Your task to perform on an android device: Add usb-c to usb-a to the cart on target.com, then select checkout. Image 0: 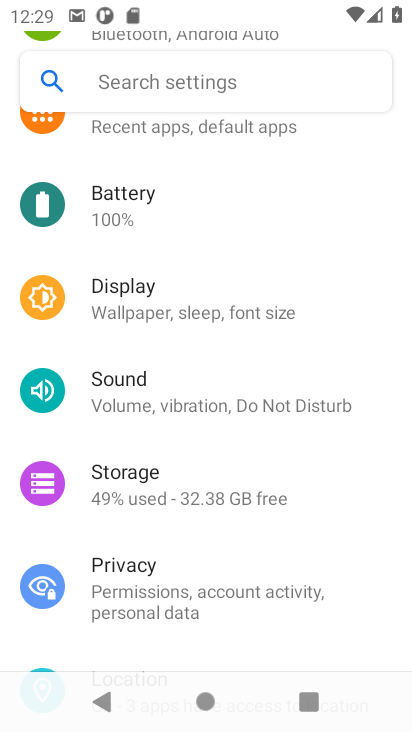
Step 0: press home button
Your task to perform on an android device: Add usb-c to usb-a to the cart on target.com, then select checkout. Image 1: 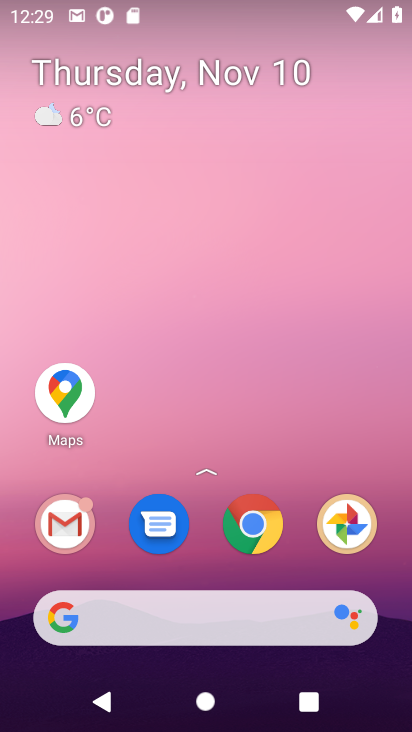
Step 1: click (237, 532)
Your task to perform on an android device: Add usb-c to usb-a to the cart on target.com, then select checkout. Image 2: 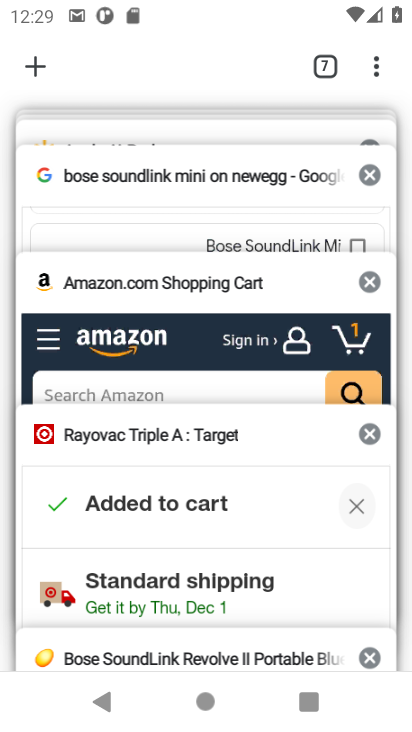
Step 2: click (261, 449)
Your task to perform on an android device: Add usb-c to usb-a to the cart on target.com, then select checkout. Image 3: 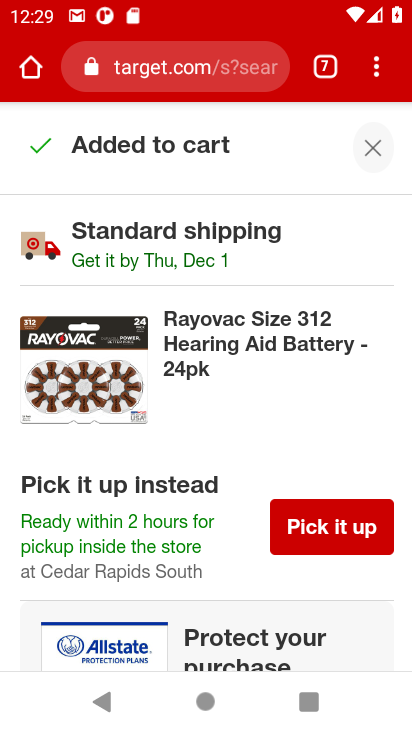
Step 3: click (377, 150)
Your task to perform on an android device: Add usb-c to usb-a to the cart on target.com, then select checkout. Image 4: 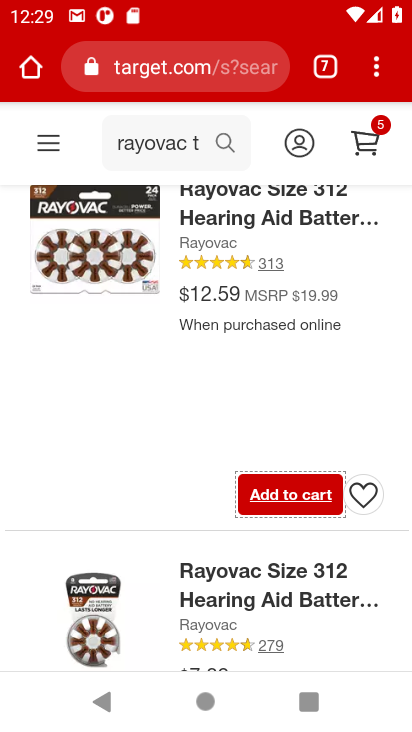
Step 4: click (195, 148)
Your task to perform on an android device: Add usb-c to usb-a to the cart on target.com, then select checkout. Image 5: 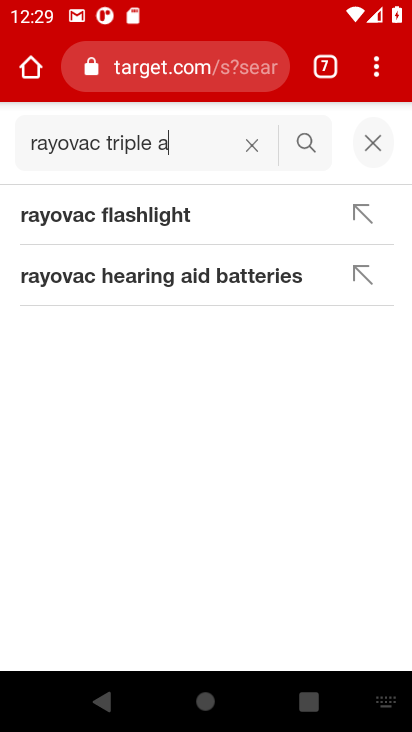
Step 5: click (254, 144)
Your task to perform on an android device: Add usb-c to usb-a to the cart on target.com, then select checkout. Image 6: 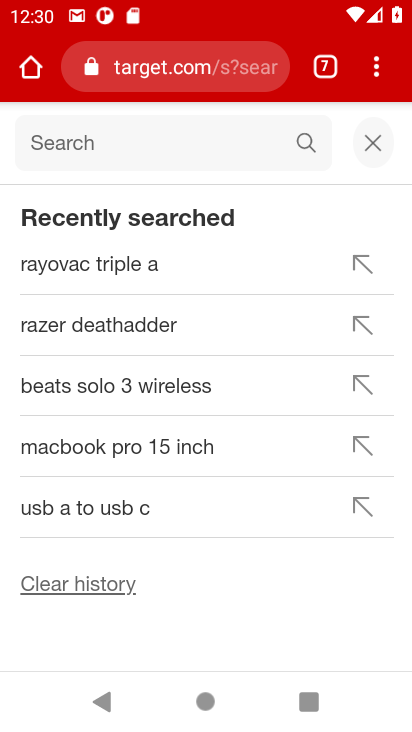
Step 6: type "usb-c to usb-a"
Your task to perform on an android device: Add usb-c to usb-a to the cart on target.com, then select checkout. Image 7: 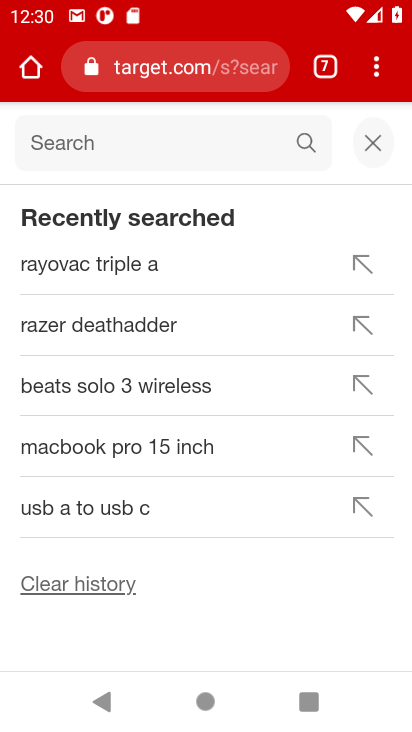
Step 7: click (151, 148)
Your task to perform on an android device: Add usb-c to usb-a to the cart on target.com, then select checkout. Image 8: 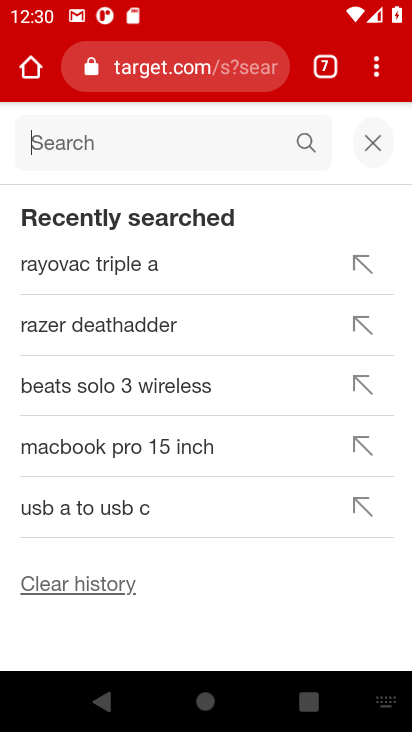
Step 8: type "usb-c to usb-a"
Your task to perform on an android device: Add usb-c to usb-a to the cart on target.com, then select checkout. Image 9: 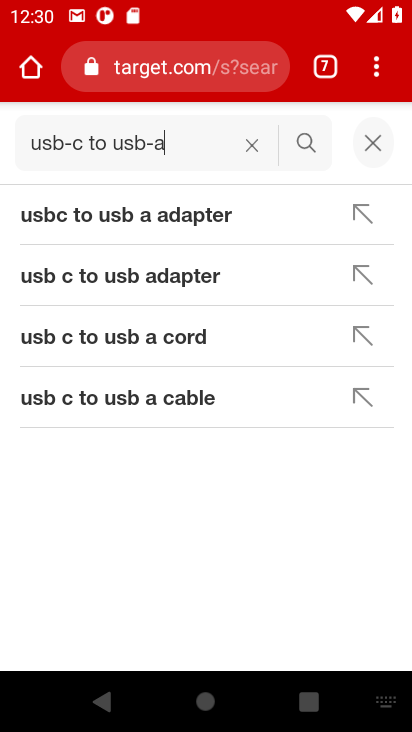
Step 9: click (301, 141)
Your task to perform on an android device: Add usb-c to usb-a to the cart on target.com, then select checkout. Image 10: 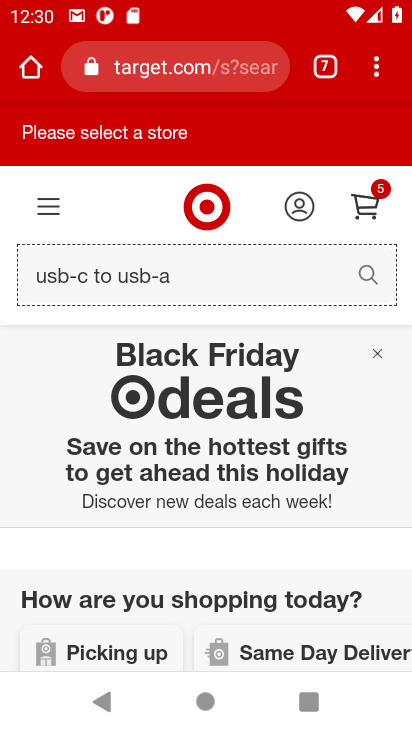
Step 10: drag from (263, 549) to (408, 267)
Your task to perform on an android device: Add usb-c to usb-a to the cart on target.com, then select checkout. Image 11: 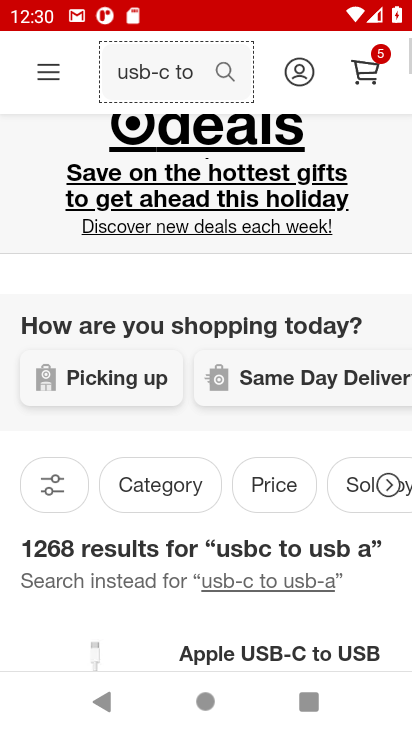
Step 11: drag from (318, 595) to (363, 177)
Your task to perform on an android device: Add usb-c to usb-a to the cart on target.com, then select checkout. Image 12: 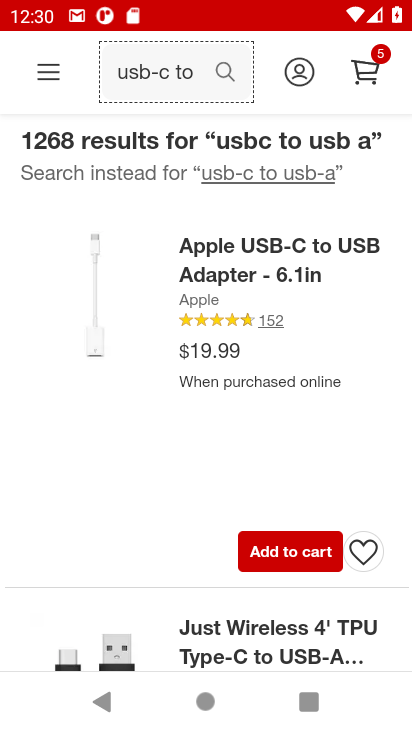
Step 12: click (271, 552)
Your task to perform on an android device: Add usb-c to usb-a to the cart on target.com, then select checkout. Image 13: 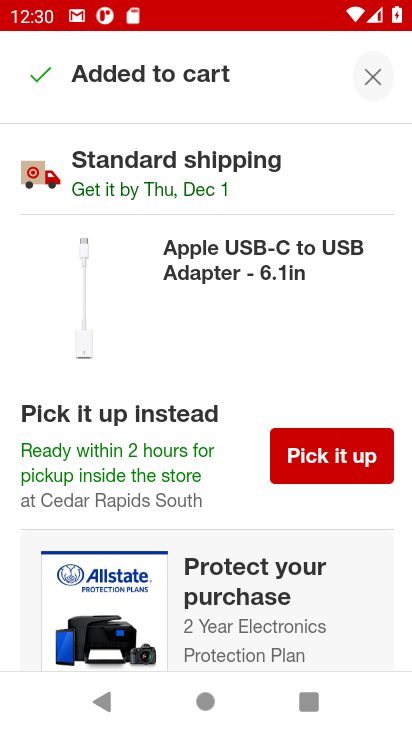
Step 13: click (370, 80)
Your task to perform on an android device: Add usb-c to usb-a to the cart on target.com, then select checkout. Image 14: 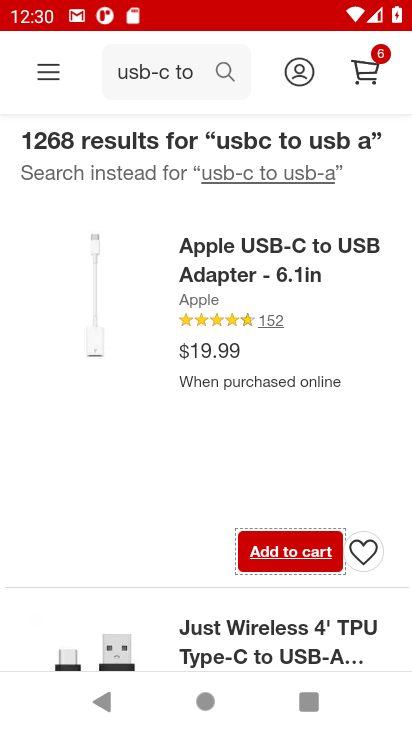
Step 14: click (368, 71)
Your task to perform on an android device: Add usb-c to usb-a to the cart on target.com, then select checkout. Image 15: 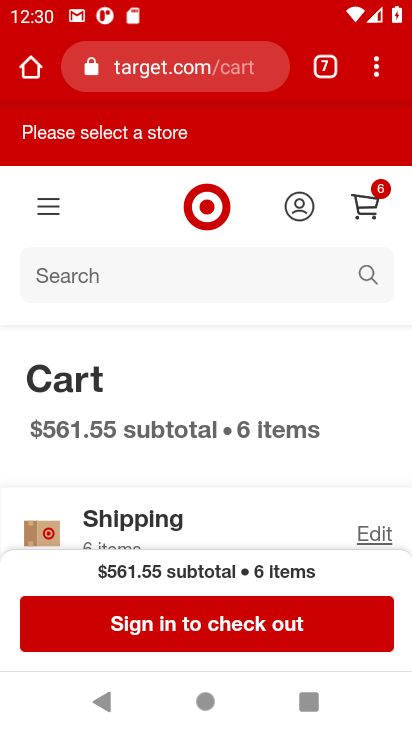
Step 15: click (249, 617)
Your task to perform on an android device: Add usb-c to usb-a to the cart on target.com, then select checkout. Image 16: 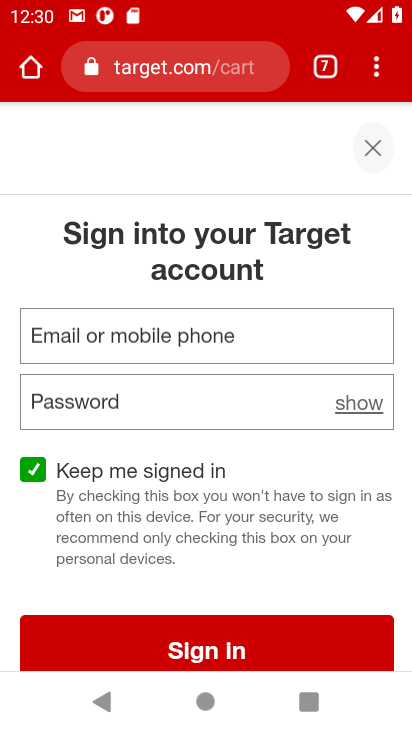
Step 16: task complete